Your task to perform on an android device: Go to CNN.com Image 0: 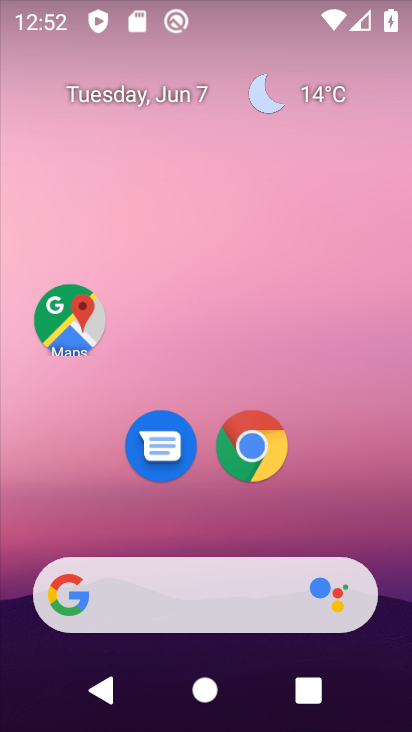
Step 0: drag from (384, 591) to (305, 47)
Your task to perform on an android device: Go to CNN.com Image 1: 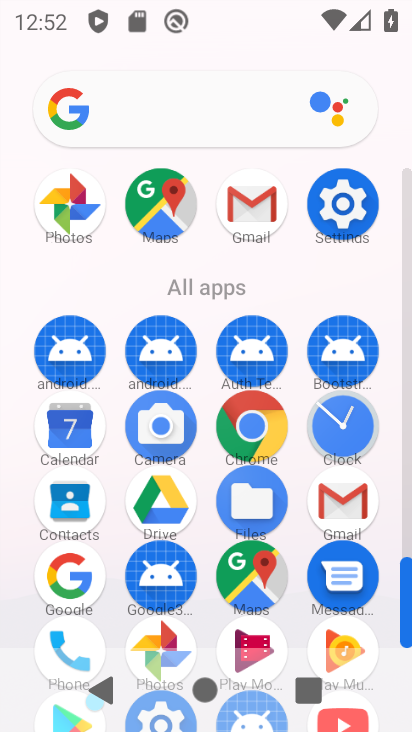
Step 1: click (252, 420)
Your task to perform on an android device: Go to CNN.com Image 2: 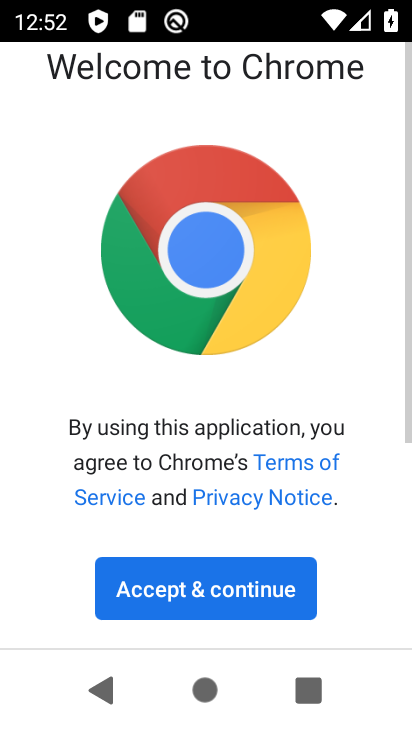
Step 2: click (219, 582)
Your task to perform on an android device: Go to CNN.com Image 3: 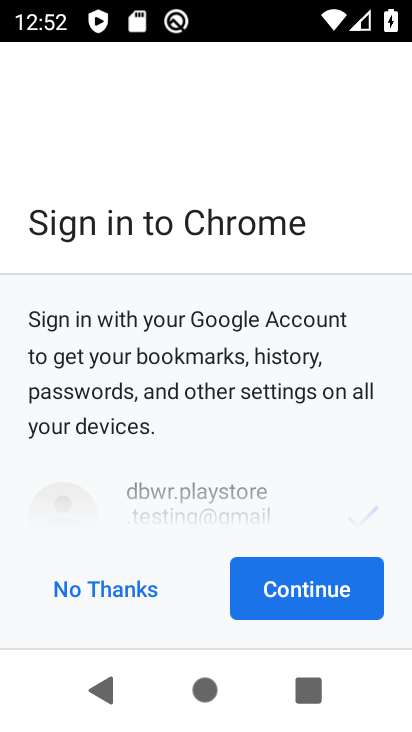
Step 3: click (328, 610)
Your task to perform on an android device: Go to CNN.com Image 4: 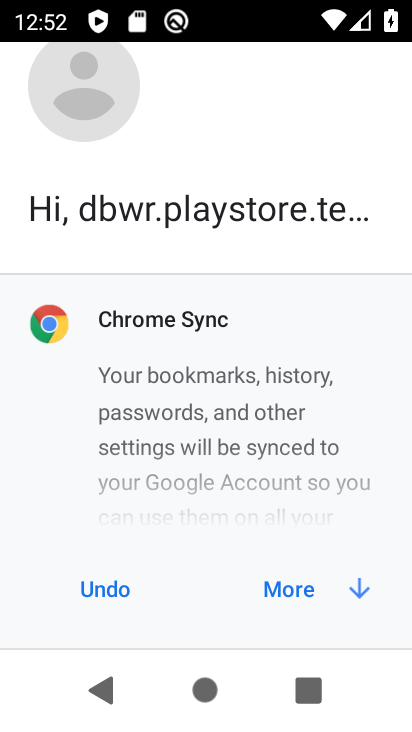
Step 4: click (301, 591)
Your task to perform on an android device: Go to CNN.com Image 5: 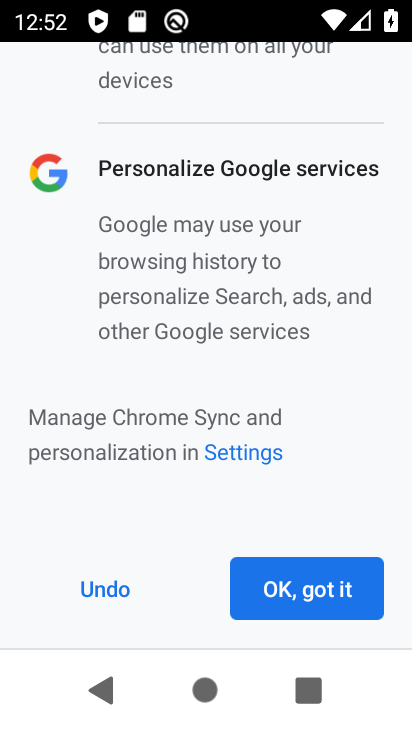
Step 5: click (301, 590)
Your task to perform on an android device: Go to CNN.com Image 6: 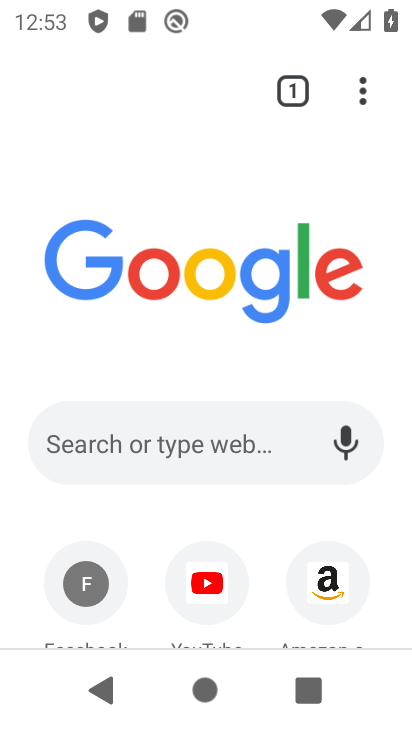
Step 6: drag from (25, 538) to (25, 208)
Your task to perform on an android device: Go to CNN.com Image 7: 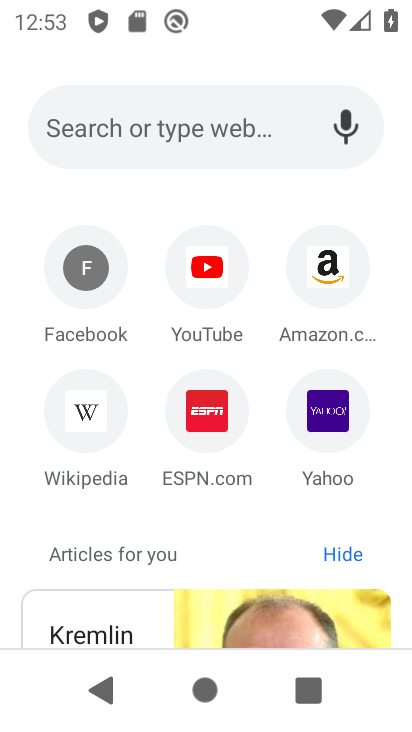
Step 7: click (173, 129)
Your task to perform on an android device: Go to CNN.com Image 8: 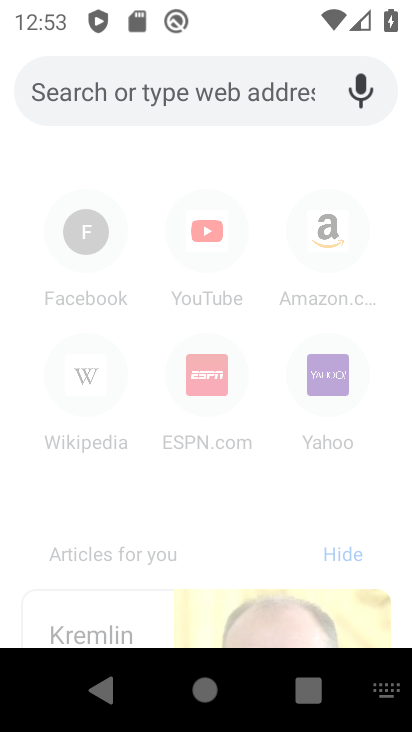
Step 8: type "CNN.com"
Your task to perform on an android device: Go to CNN.com Image 9: 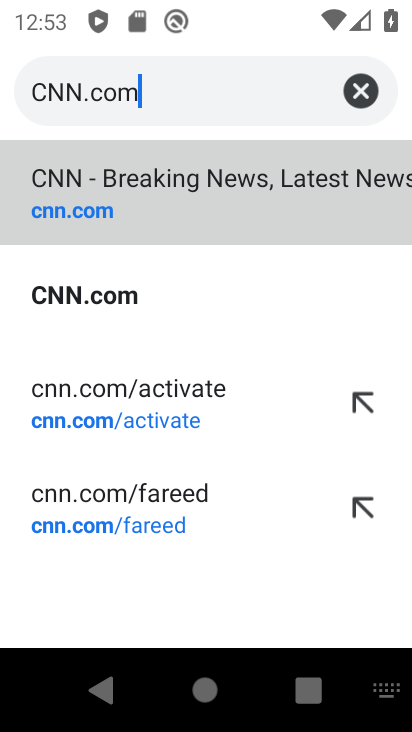
Step 9: type ""
Your task to perform on an android device: Go to CNN.com Image 10: 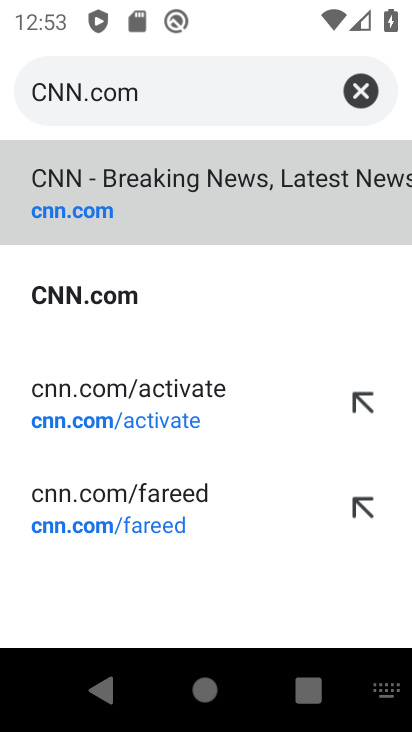
Step 10: click (123, 192)
Your task to perform on an android device: Go to CNN.com Image 11: 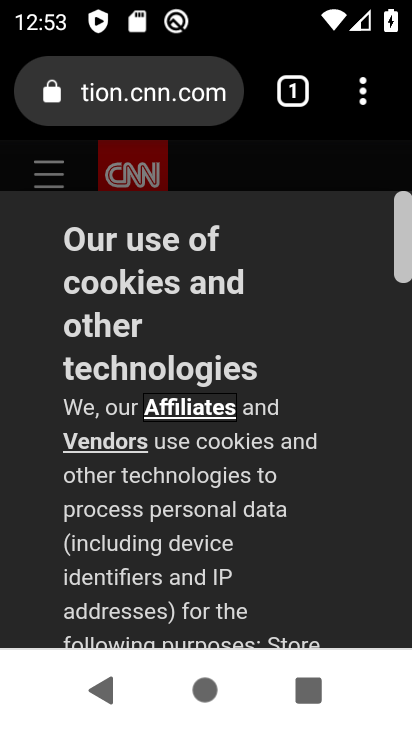
Step 11: task complete